Your task to perform on an android device: toggle sleep mode Image 0: 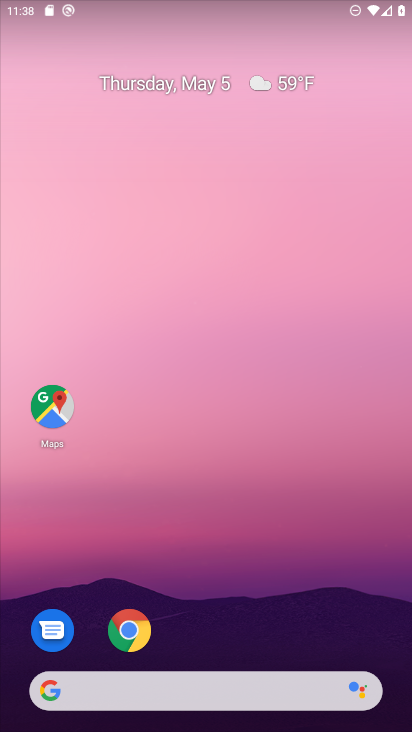
Step 0: drag from (302, 536) to (345, 120)
Your task to perform on an android device: toggle sleep mode Image 1: 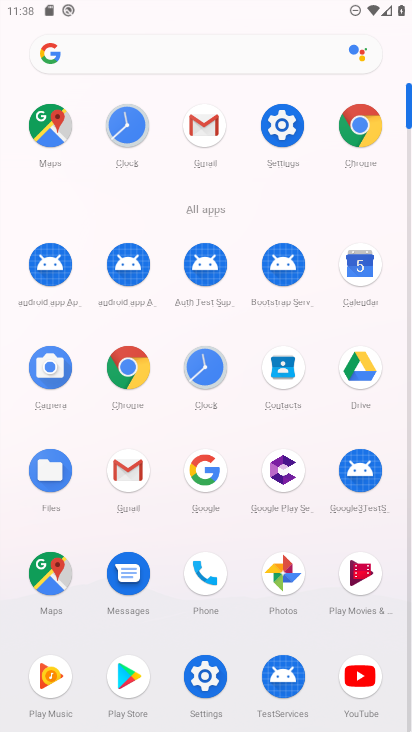
Step 1: click (283, 136)
Your task to perform on an android device: toggle sleep mode Image 2: 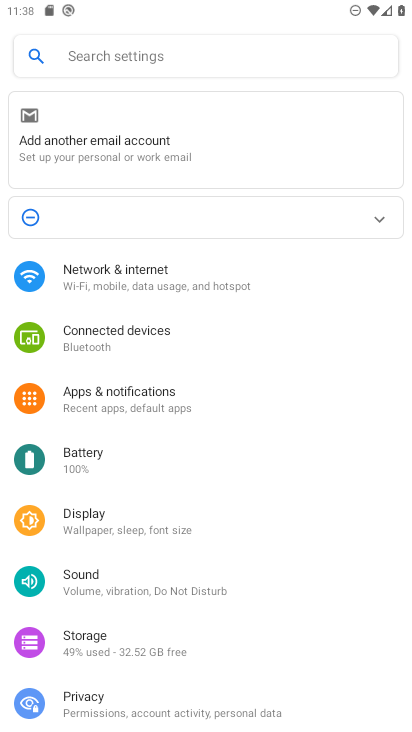
Step 2: click (144, 532)
Your task to perform on an android device: toggle sleep mode Image 3: 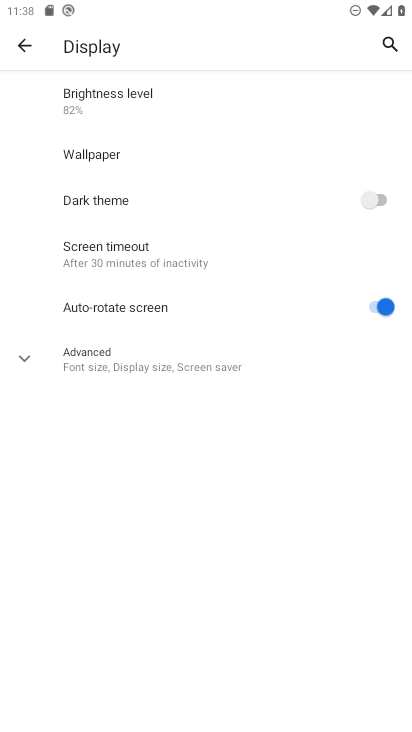
Step 3: click (122, 245)
Your task to perform on an android device: toggle sleep mode Image 4: 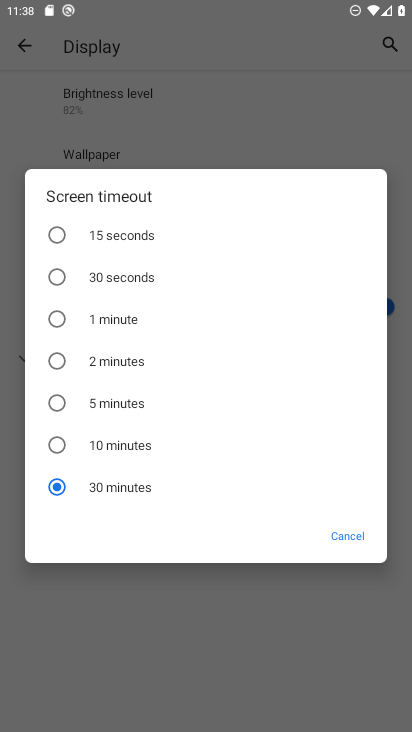
Step 4: click (86, 448)
Your task to perform on an android device: toggle sleep mode Image 5: 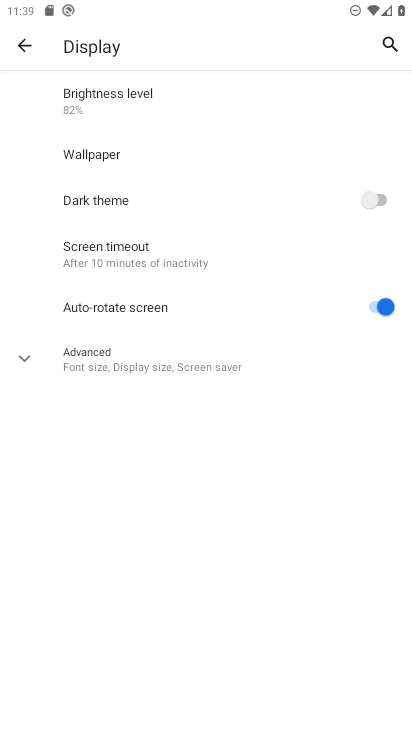
Step 5: task complete